Your task to perform on an android device: Open accessibility settings Image 0: 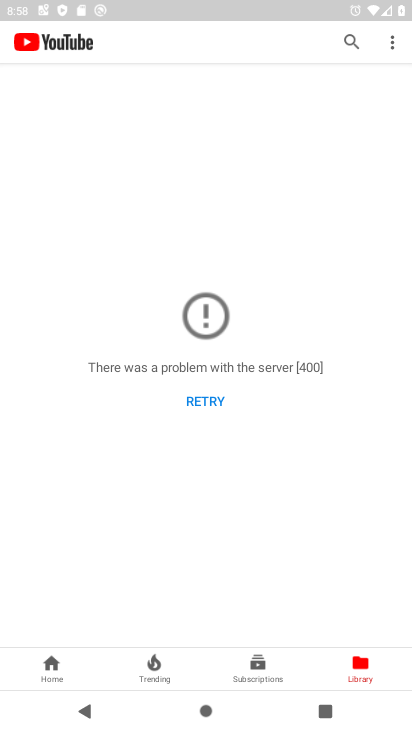
Step 0: press home button
Your task to perform on an android device: Open accessibility settings Image 1: 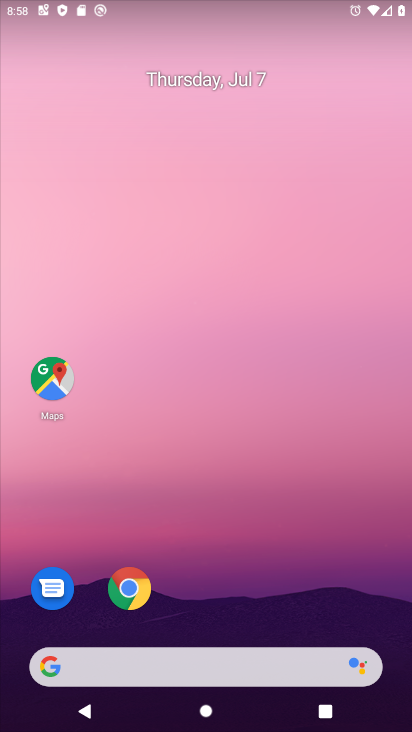
Step 1: drag from (218, 627) to (241, 111)
Your task to perform on an android device: Open accessibility settings Image 2: 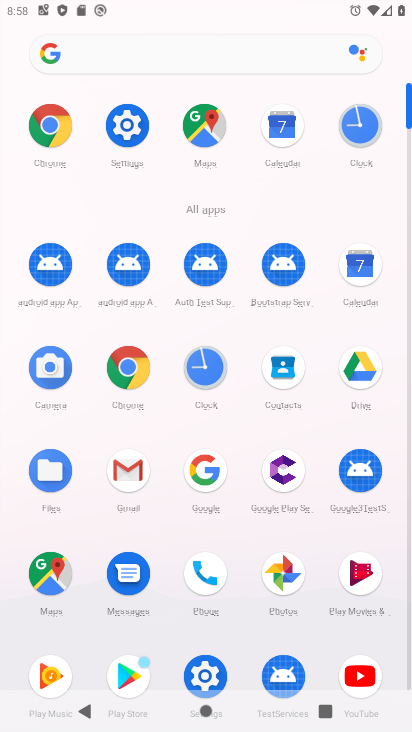
Step 2: click (126, 117)
Your task to perform on an android device: Open accessibility settings Image 3: 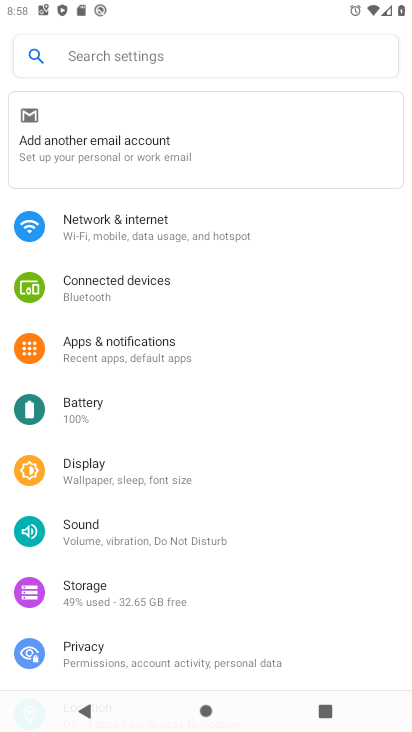
Step 3: drag from (198, 638) to (226, 164)
Your task to perform on an android device: Open accessibility settings Image 4: 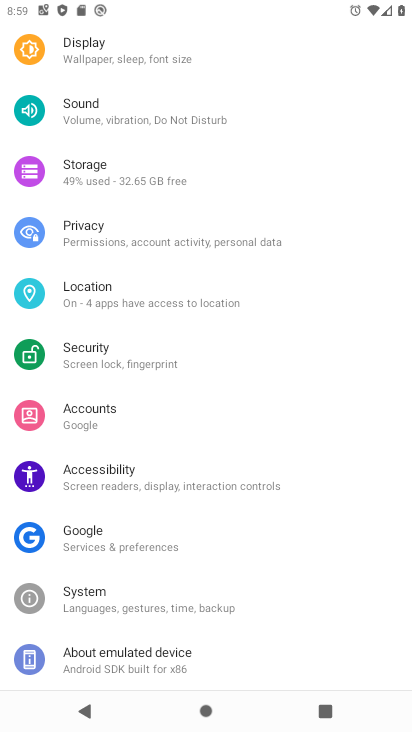
Step 4: click (152, 462)
Your task to perform on an android device: Open accessibility settings Image 5: 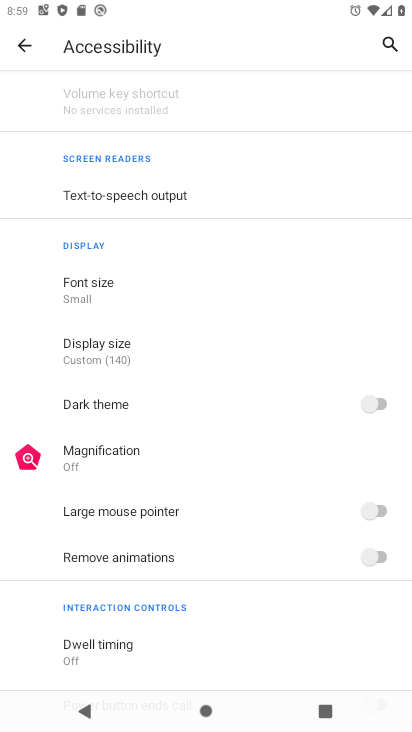
Step 5: task complete